Your task to perform on an android device: choose inbox layout in the gmail app Image 0: 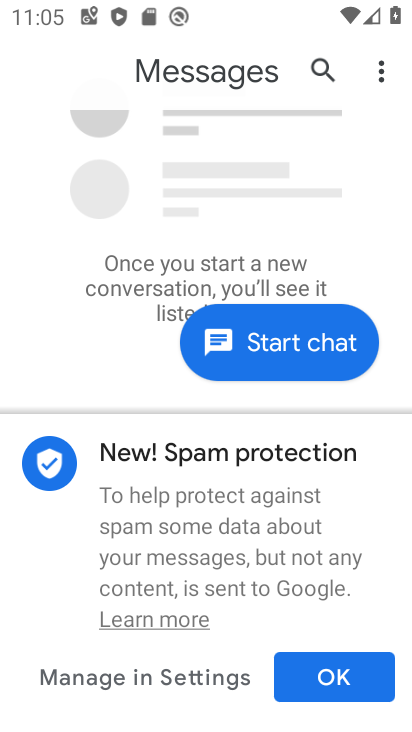
Step 0: press home button
Your task to perform on an android device: choose inbox layout in the gmail app Image 1: 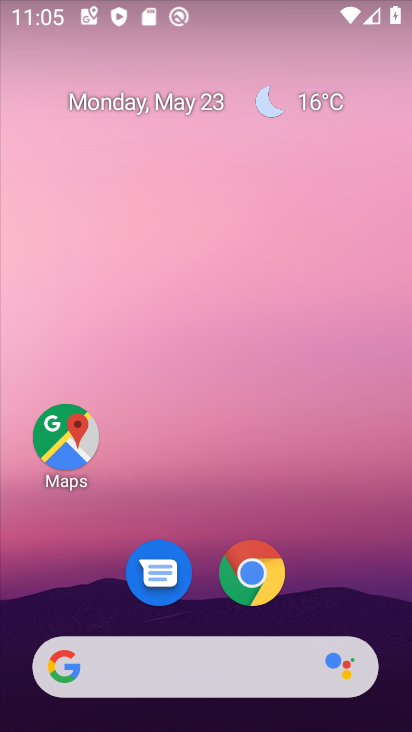
Step 1: drag from (346, 564) to (209, 9)
Your task to perform on an android device: choose inbox layout in the gmail app Image 2: 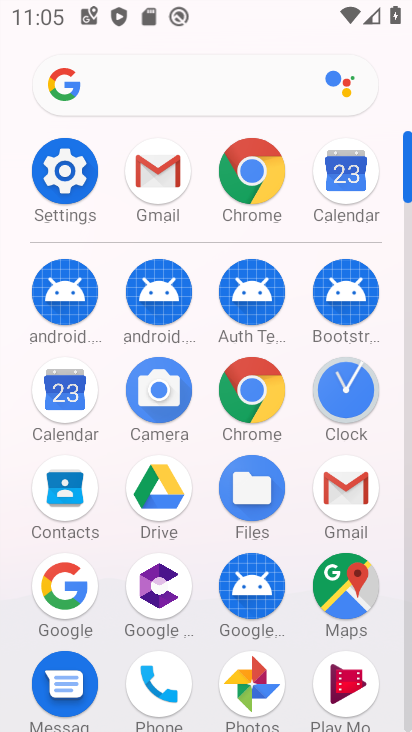
Step 2: drag from (11, 592) to (18, 325)
Your task to perform on an android device: choose inbox layout in the gmail app Image 3: 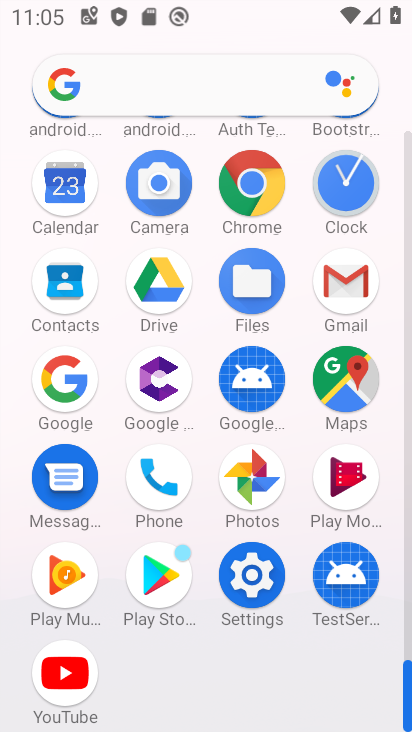
Step 3: click (348, 274)
Your task to perform on an android device: choose inbox layout in the gmail app Image 4: 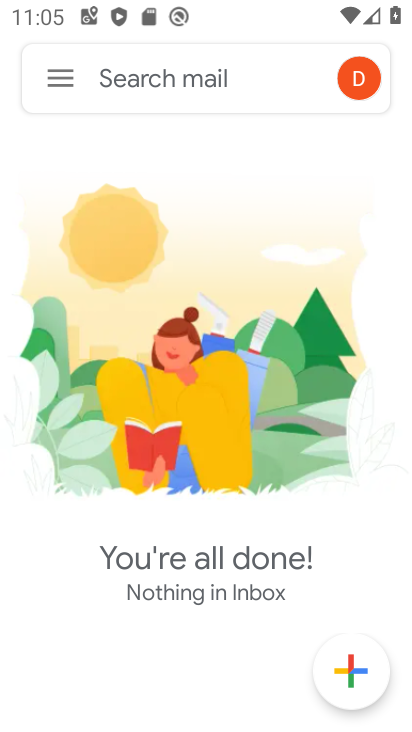
Step 4: click (56, 77)
Your task to perform on an android device: choose inbox layout in the gmail app Image 5: 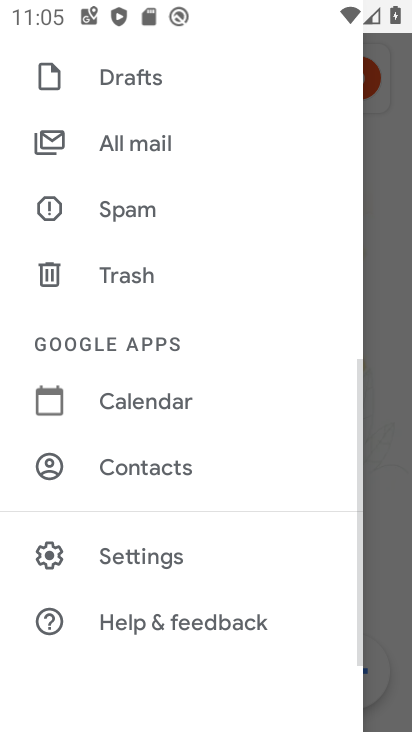
Step 5: click (158, 567)
Your task to perform on an android device: choose inbox layout in the gmail app Image 6: 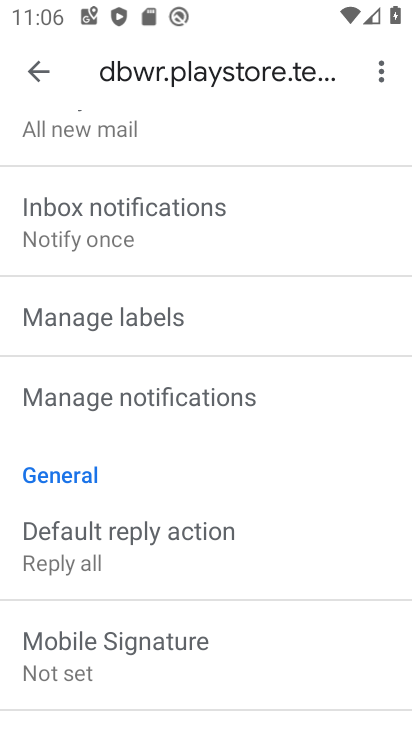
Step 6: click (167, 393)
Your task to perform on an android device: choose inbox layout in the gmail app Image 7: 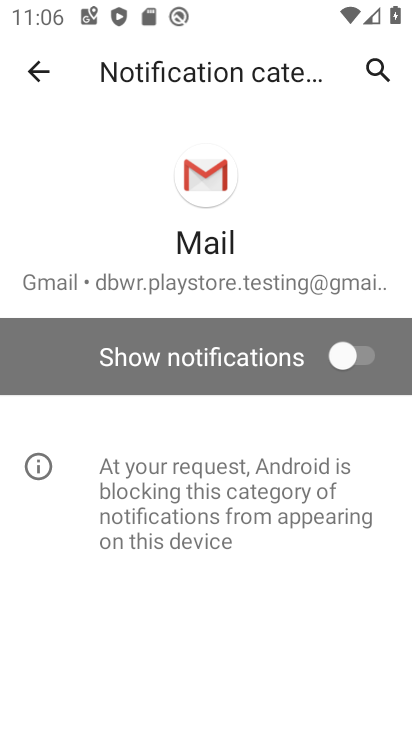
Step 7: drag from (199, 504) to (187, 76)
Your task to perform on an android device: choose inbox layout in the gmail app Image 8: 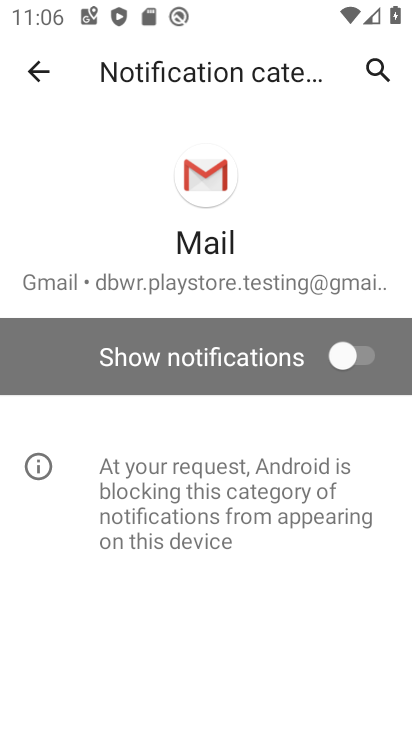
Step 8: click (40, 79)
Your task to perform on an android device: choose inbox layout in the gmail app Image 9: 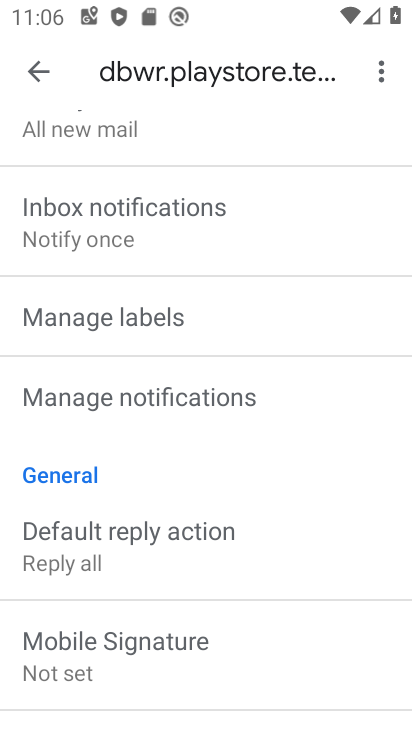
Step 9: drag from (235, 251) to (236, 649)
Your task to perform on an android device: choose inbox layout in the gmail app Image 10: 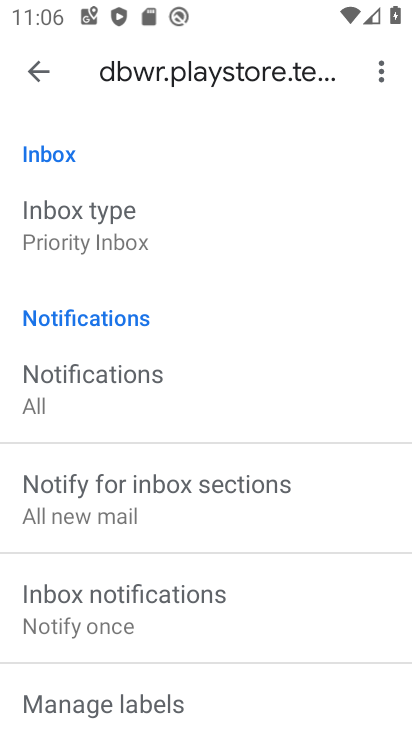
Step 10: click (150, 222)
Your task to perform on an android device: choose inbox layout in the gmail app Image 11: 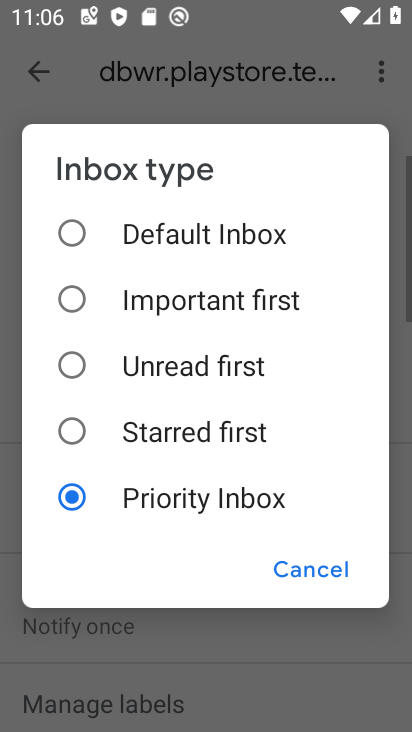
Step 11: click (150, 221)
Your task to perform on an android device: choose inbox layout in the gmail app Image 12: 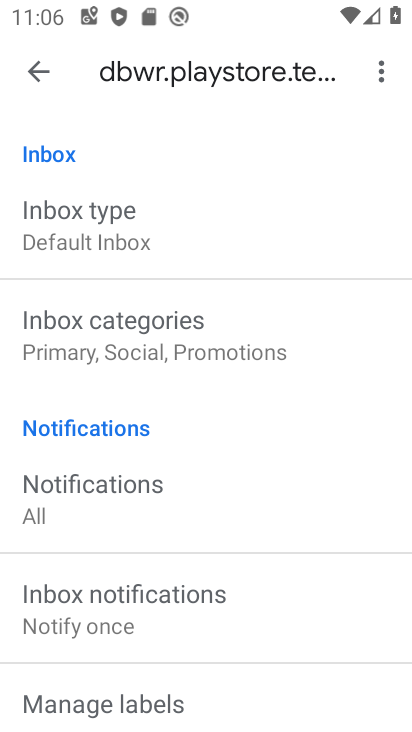
Step 12: task complete